Your task to perform on an android device: Go to Reddit.com Image 0: 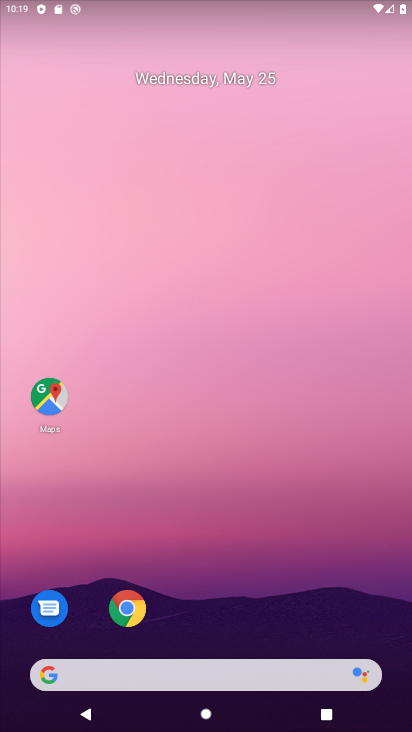
Step 0: click (128, 607)
Your task to perform on an android device: Go to Reddit.com Image 1: 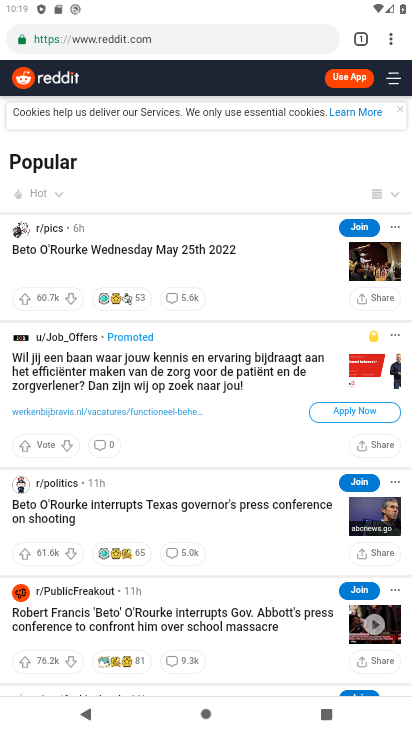
Step 1: task complete